Your task to perform on an android device: toggle notifications settings in the gmail app Image 0: 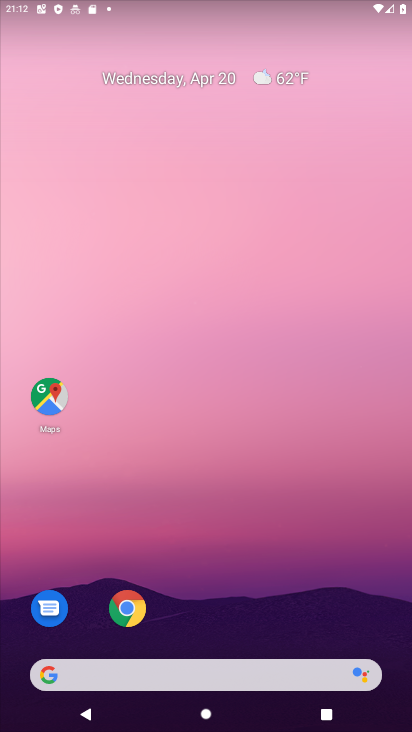
Step 0: drag from (260, 547) to (287, 48)
Your task to perform on an android device: toggle notifications settings in the gmail app Image 1: 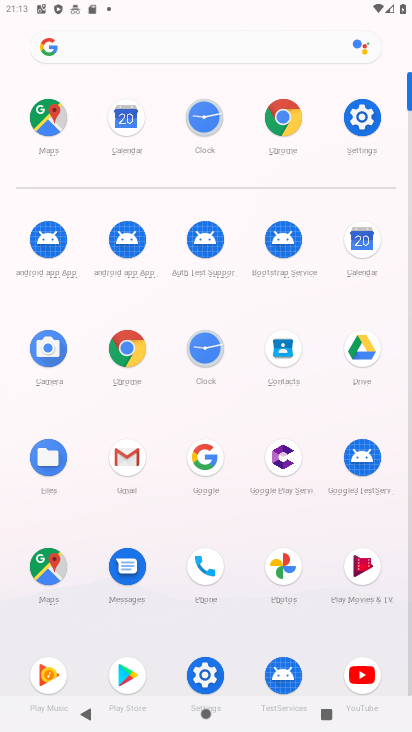
Step 1: click (114, 462)
Your task to perform on an android device: toggle notifications settings in the gmail app Image 2: 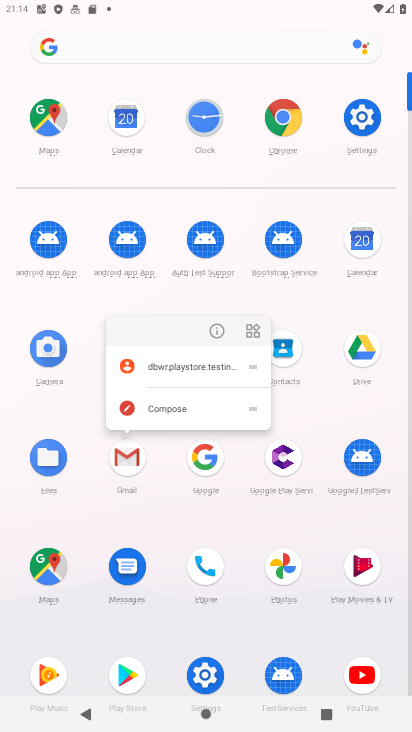
Step 2: click (213, 328)
Your task to perform on an android device: toggle notifications settings in the gmail app Image 3: 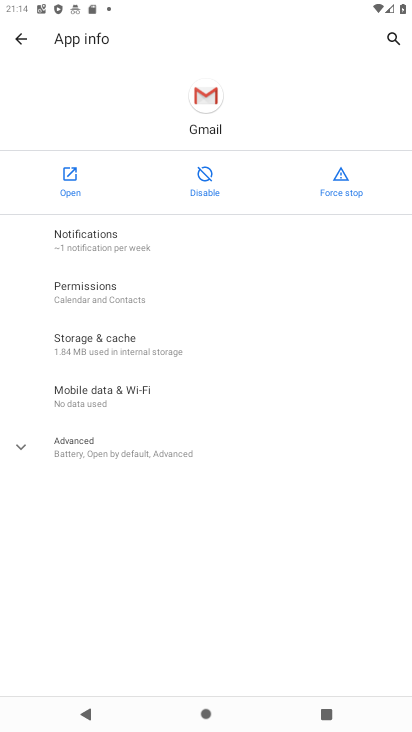
Step 3: click (112, 251)
Your task to perform on an android device: toggle notifications settings in the gmail app Image 4: 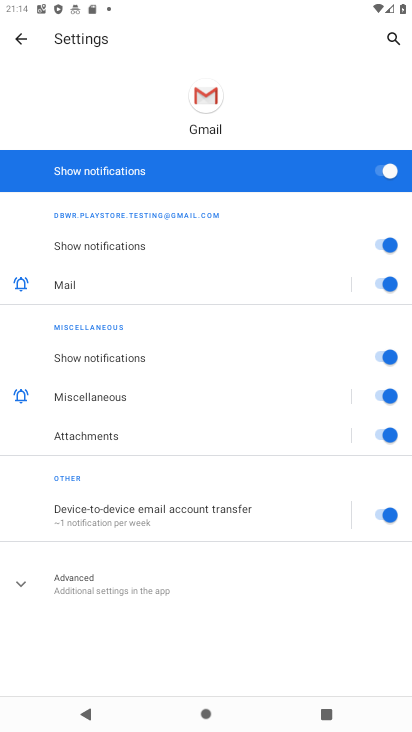
Step 4: click (376, 173)
Your task to perform on an android device: toggle notifications settings in the gmail app Image 5: 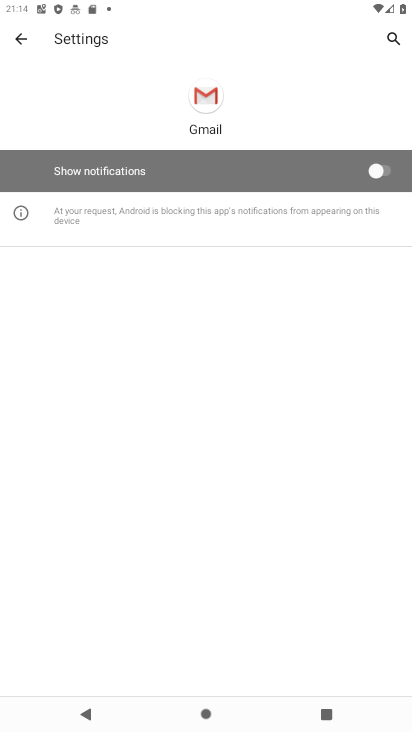
Step 5: task complete